Your task to perform on an android device: Go to Google Image 0: 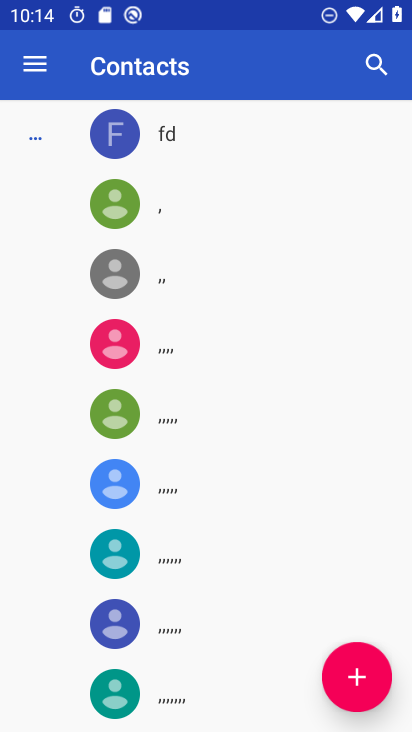
Step 0: press home button
Your task to perform on an android device: Go to Google Image 1: 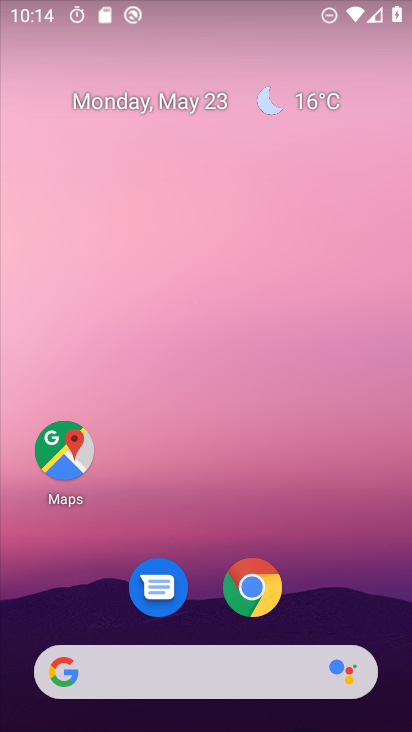
Step 1: drag from (235, 505) to (251, 67)
Your task to perform on an android device: Go to Google Image 2: 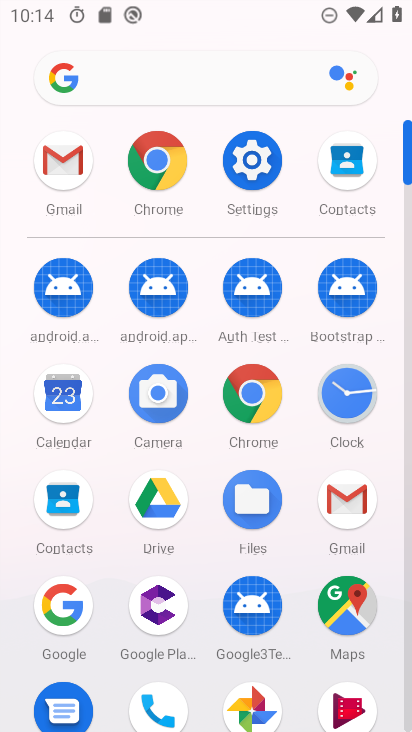
Step 2: click (72, 614)
Your task to perform on an android device: Go to Google Image 3: 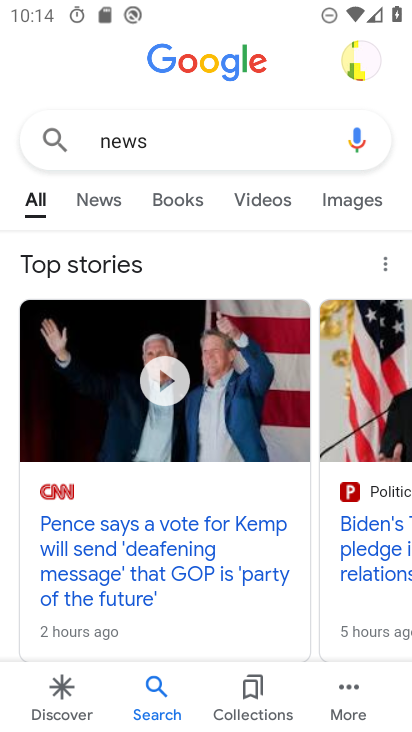
Step 3: task complete